Your task to perform on an android device: turn on javascript in the chrome app Image 0: 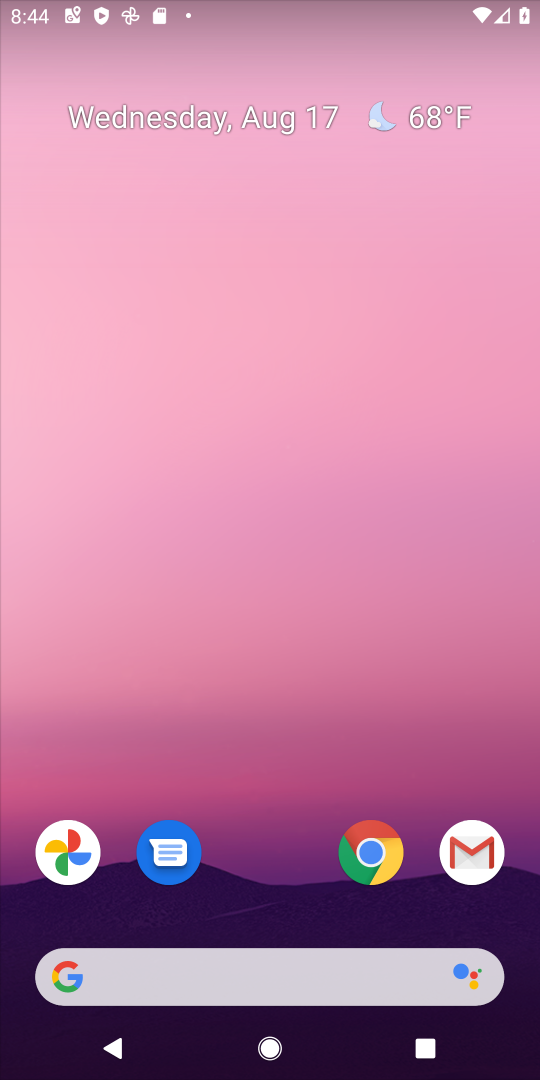
Step 0: click (373, 855)
Your task to perform on an android device: turn on javascript in the chrome app Image 1: 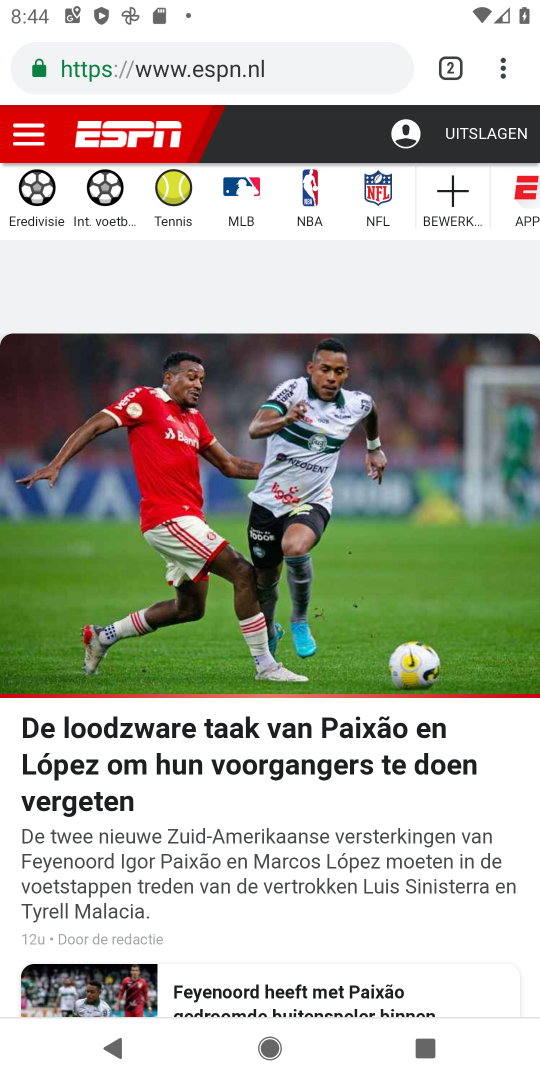
Step 1: click (506, 67)
Your task to perform on an android device: turn on javascript in the chrome app Image 2: 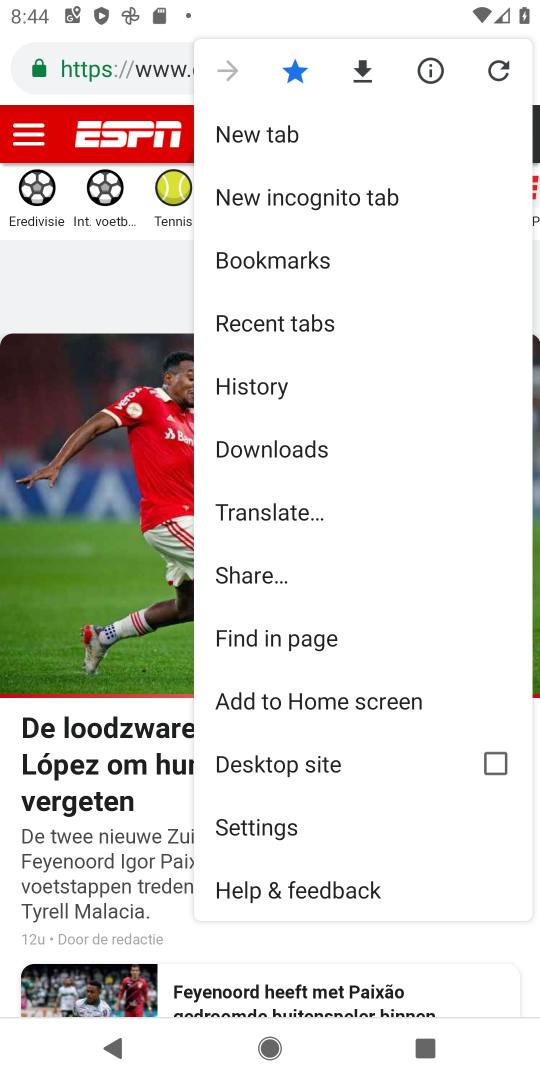
Step 2: click (265, 822)
Your task to perform on an android device: turn on javascript in the chrome app Image 3: 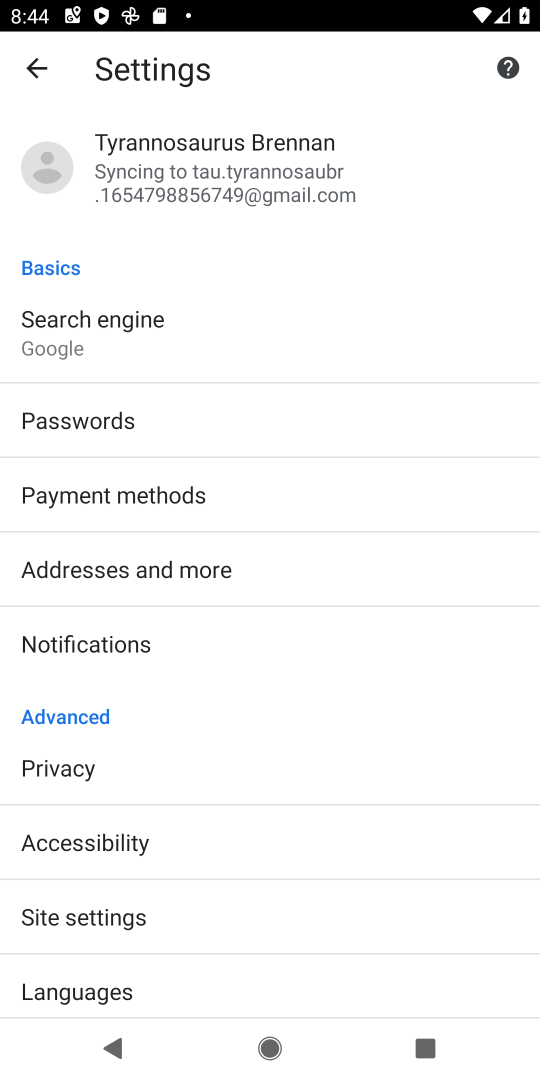
Step 3: click (100, 913)
Your task to perform on an android device: turn on javascript in the chrome app Image 4: 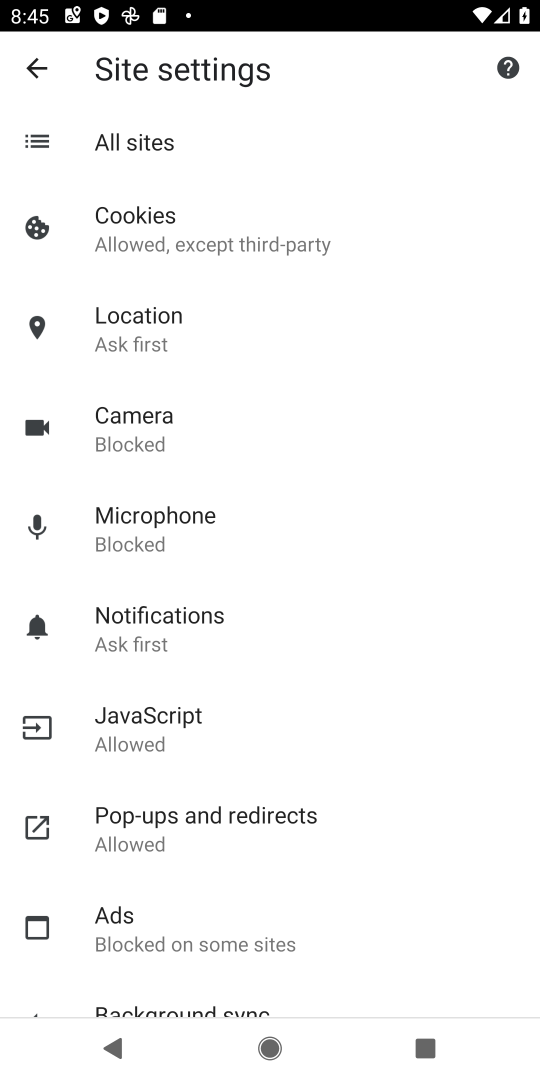
Step 4: click (118, 709)
Your task to perform on an android device: turn on javascript in the chrome app Image 5: 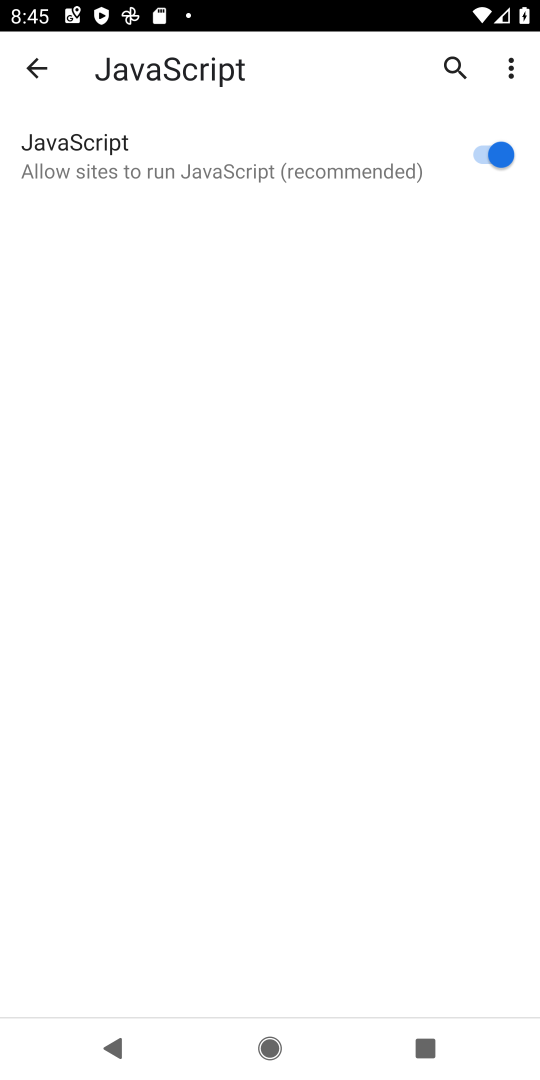
Step 5: task complete